Your task to perform on an android device: see creations saved in the google photos Image 0: 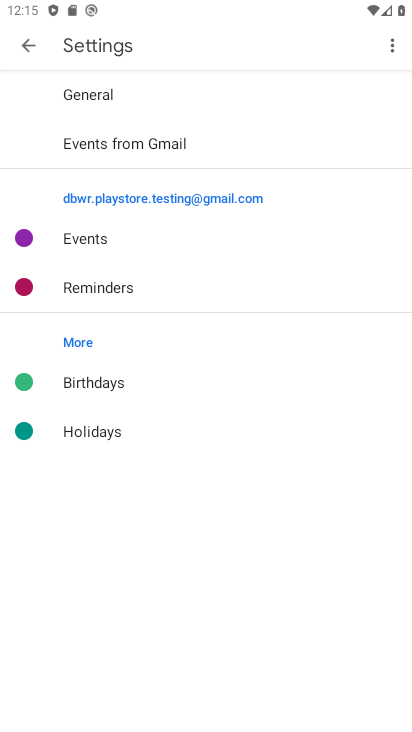
Step 0: press home button
Your task to perform on an android device: see creations saved in the google photos Image 1: 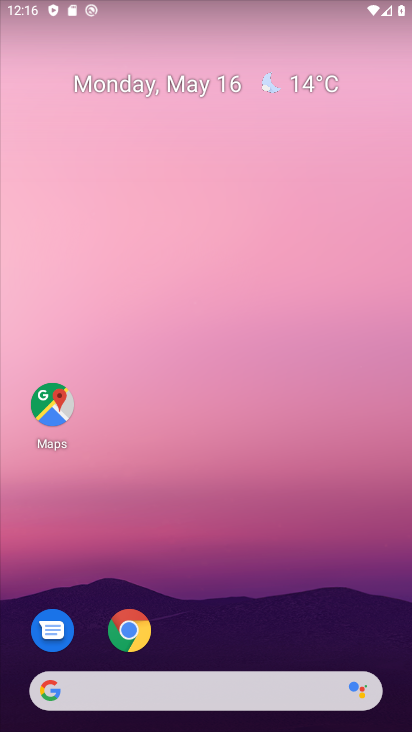
Step 1: drag from (238, 601) to (264, 128)
Your task to perform on an android device: see creations saved in the google photos Image 2: 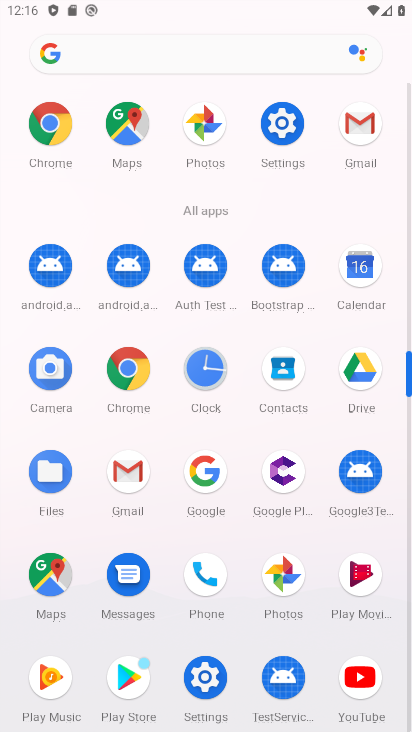
Step 2: click (288, 577)
Your task to perform on an android device: see creations saved in the google photos Image 3: 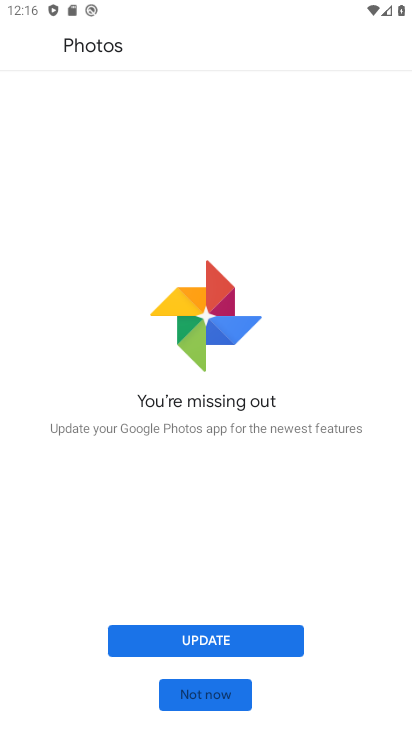
Step 3: click (215, 699)
Your task to perform on an android device: see creations saved in the google photos Image 4: 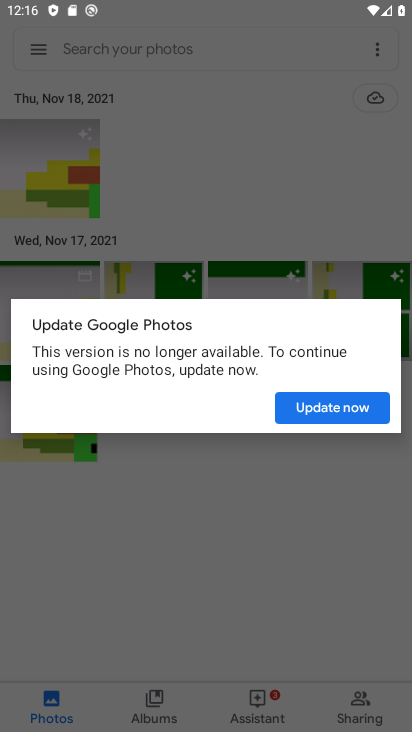
Step 4: click (345, 410)
Your task to perform on an android device: see creations saved in the google photos Image 5: 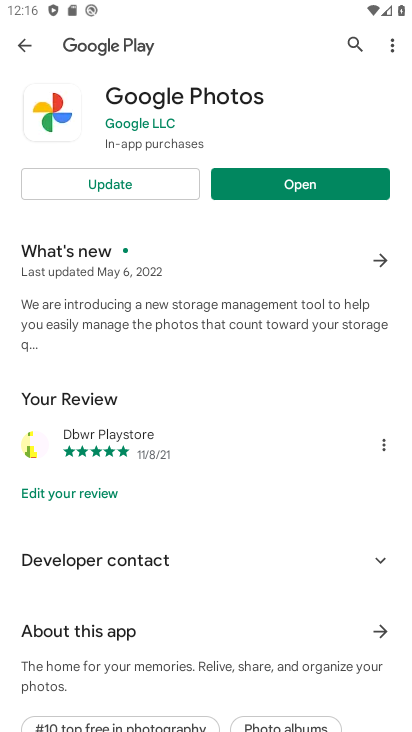
Step 5: click (321, 186)
Your task to perform on an android device: see creations saved in the google photos Image 6: 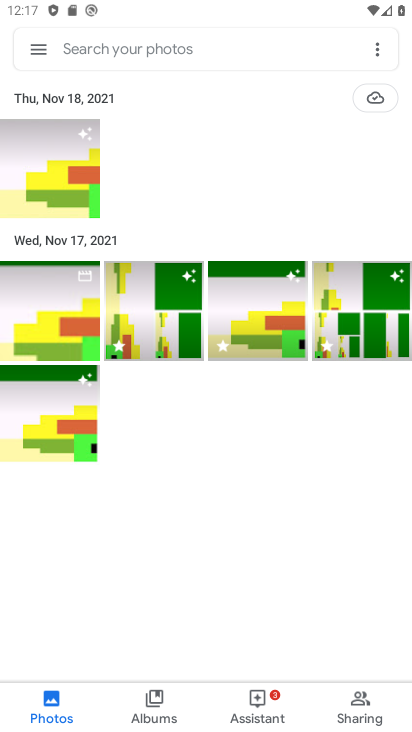
Step 6: click (139, 50)
Your task to perform on an android device: see creations saved in the google photos Image 7: 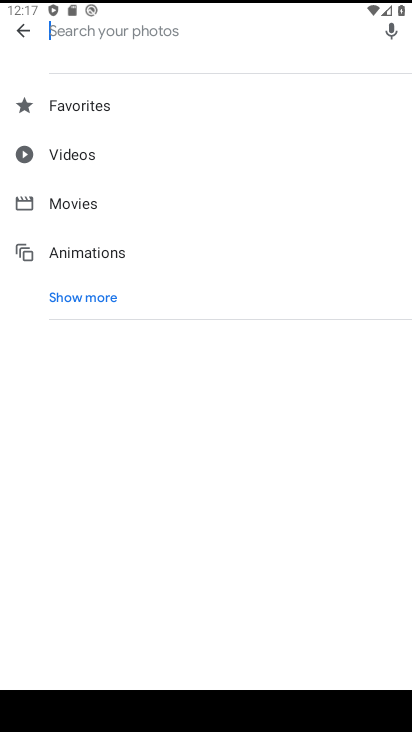
Step 7: click (109, 300)
Your task to perform on an android device: see creations saved in the google photos Image 8: 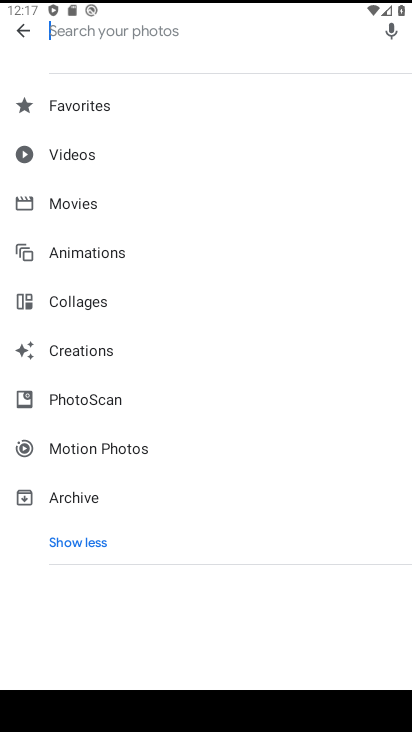
Step 8: click (90, 353)
Your task to perform on an android device: see creations saved in the google photos Image 9: 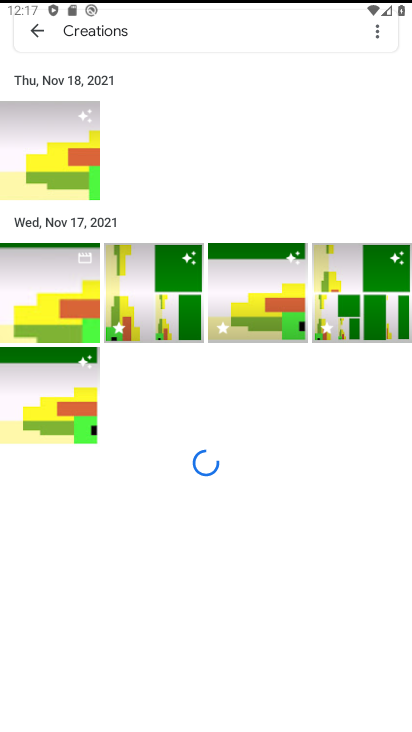
Step 9: task complete